Your task to perform on an android device: make emails show in primary in the gmail app Image 0: 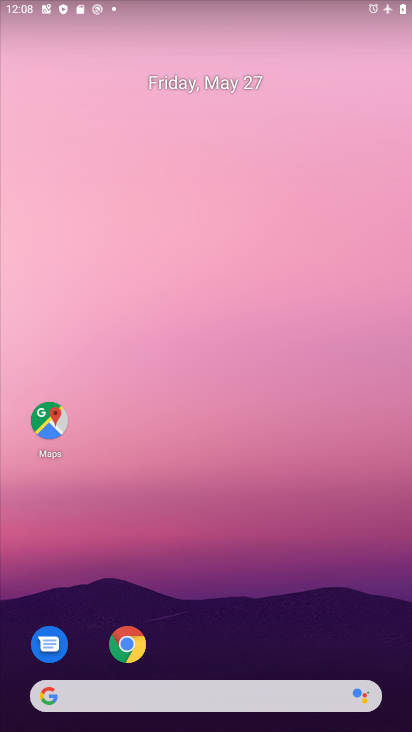
Step 0: drag from (197, 632) to (192, 141)
Your task to perform on an android device: make emails show in primary in the gmail app Image 1: 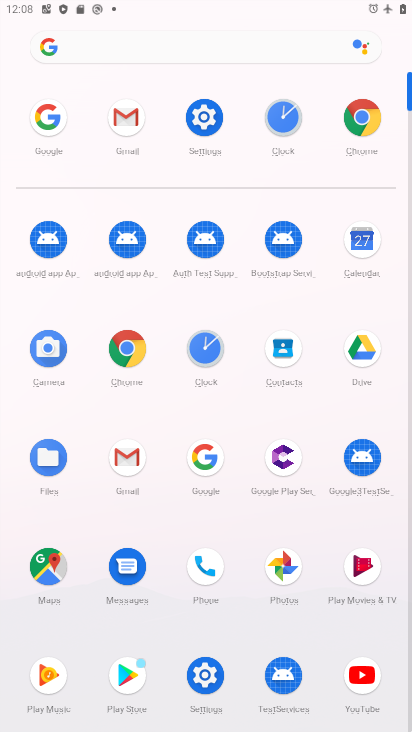
Step 1: click (134, 140)
Your task to perform on an android device: make emails show in primary in the gmail app Image 2: 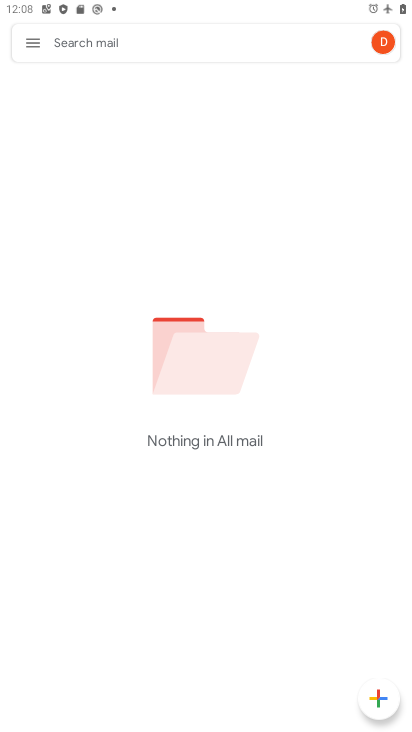
Step 2: click (31, 50)
Your task to perform on an android device: make emails show in primary in the gmail app Image 3: 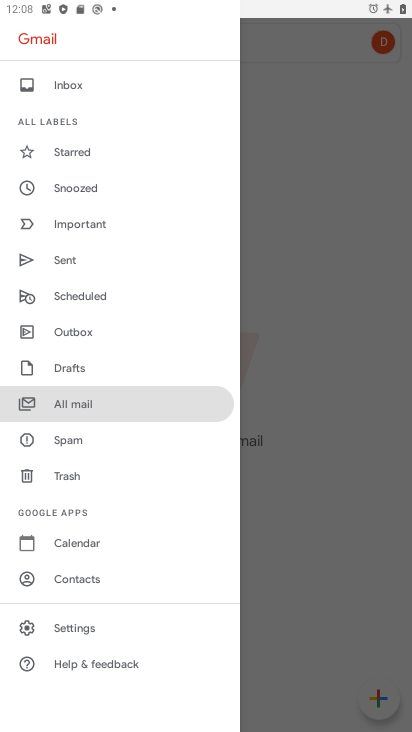
Step 3: click (114, 613)
Your task to perform on an android device: make emails show in primary in the gmail app Image 4: 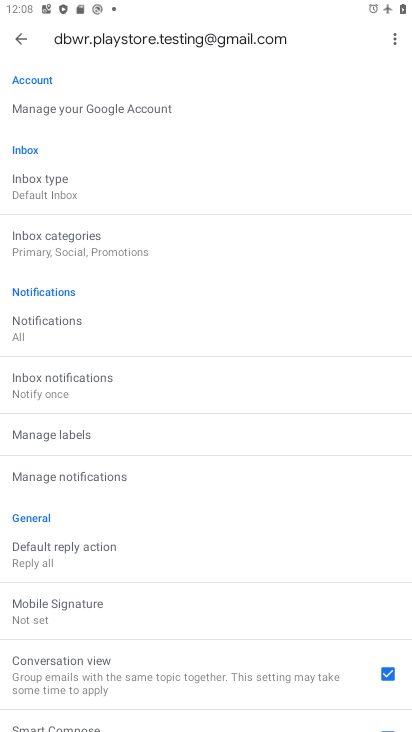
Step 4: click (117, 172)
Your task to perform on an android device: make emails show in primary in the gmail app Image 5: 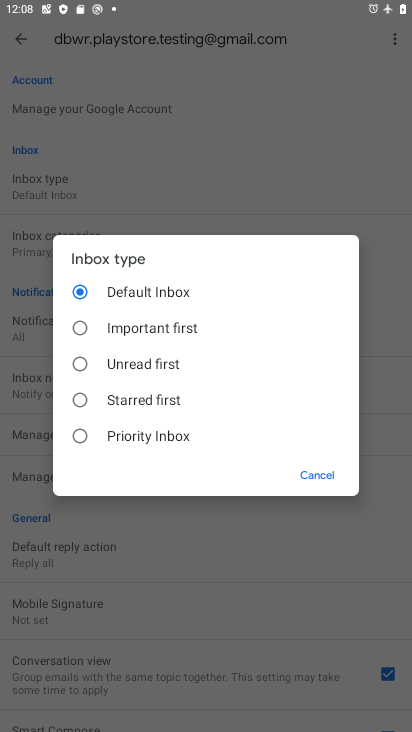
Step 5: click (321, 487)
Your task to perform on an android device: make emails show in primary in the gmail app Image 6: 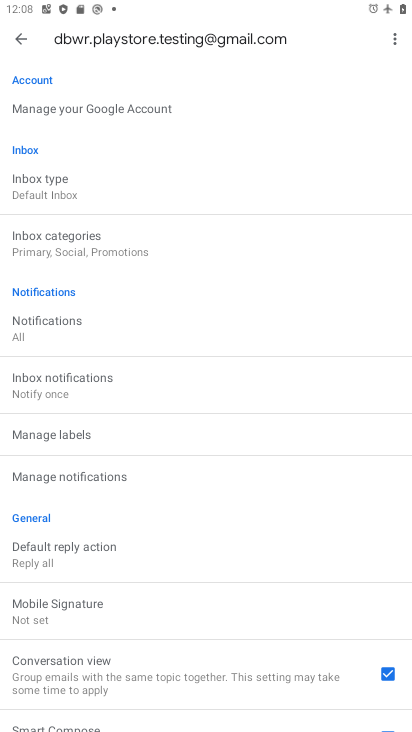
Step 6: click (95, 248)
Your task to perform on an android device: make emails show in primary in the gmail app Image 7: 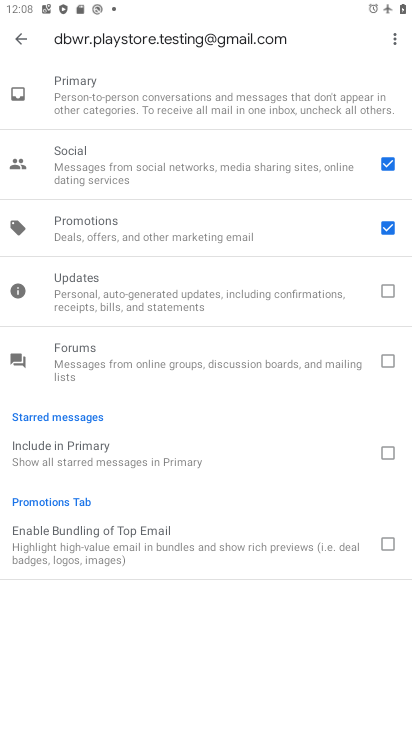
Step 7: click (141, 92)
Your task to perform on an android device: make emails show in primary in the gmail app Image 8: 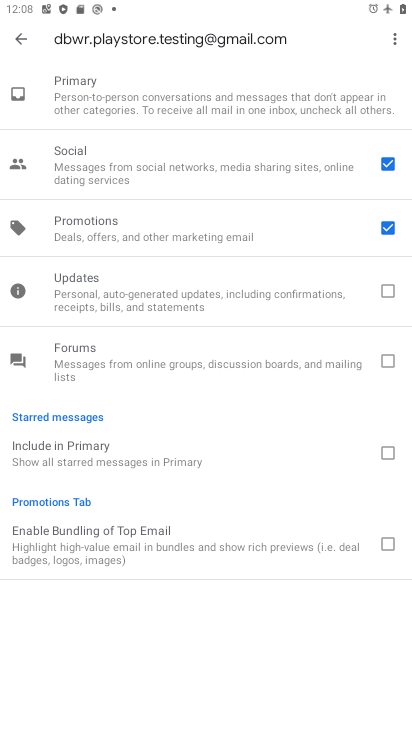
Step 8: task complete